Your task to perform on an android device: set the timer Image 0: 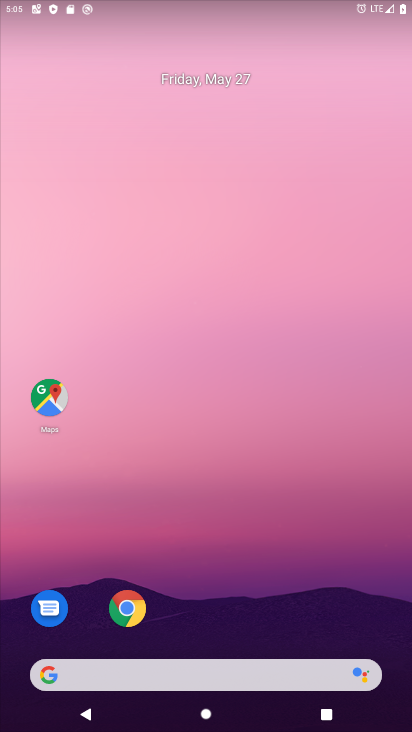
Step 0: drag from (239, 247) to (255, 141)
Your task to perform on an android device: set the timer Image 1: 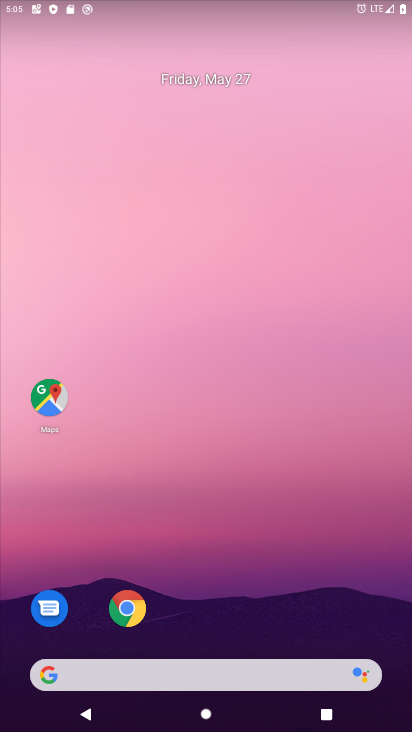
Step 1: drag from (248, 677) to (255, 138)
Your task to perform on an android device: set the timer Image 2: 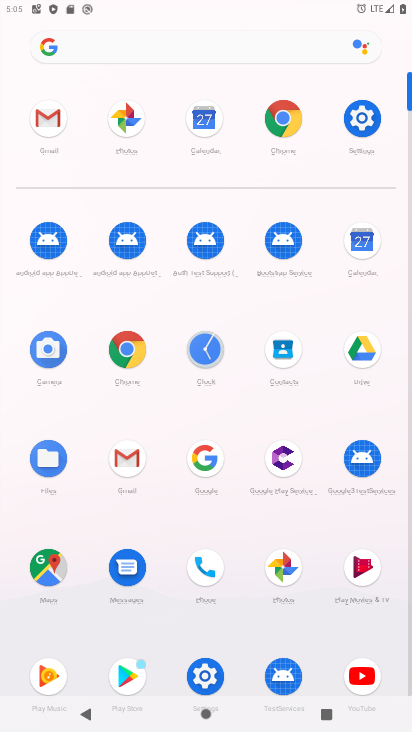
Step 2: click (204, 359)
Your task to perform on an android device: set the timer Image 3: 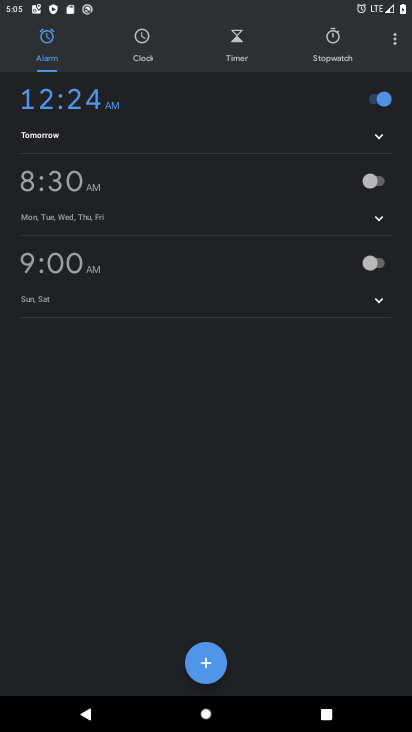
Step 3: click (241, 44)
Your task to perform on an android device: set the timer Image 4: 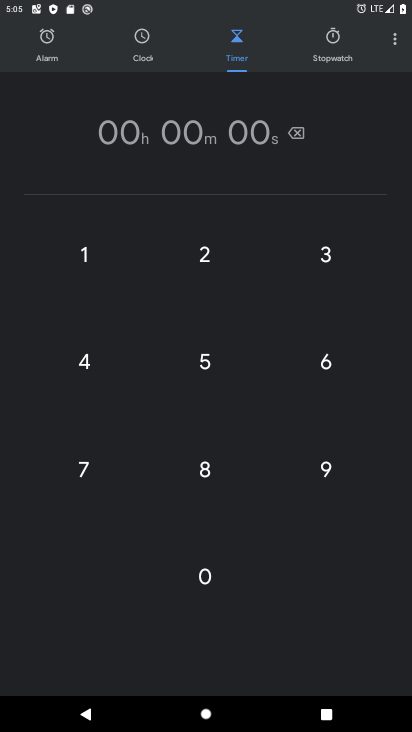
Step 4: click (205, 584)
Your task to perform on an android device: set the timer Image 5: 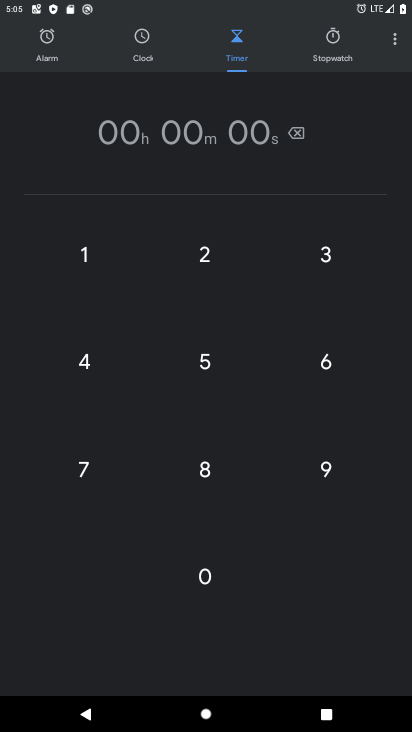
Step 5: click (197, 477)
Your task to perform on an android device: set the timer Image 6: 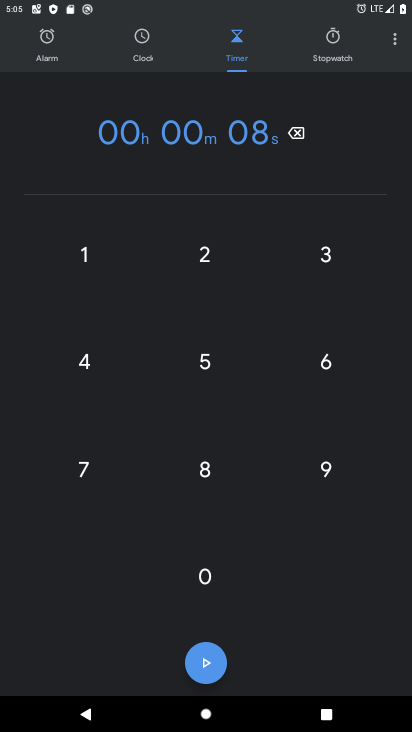
Step 6: click (208, 570)
Your task to perform on an android device: set the timer Image 7: 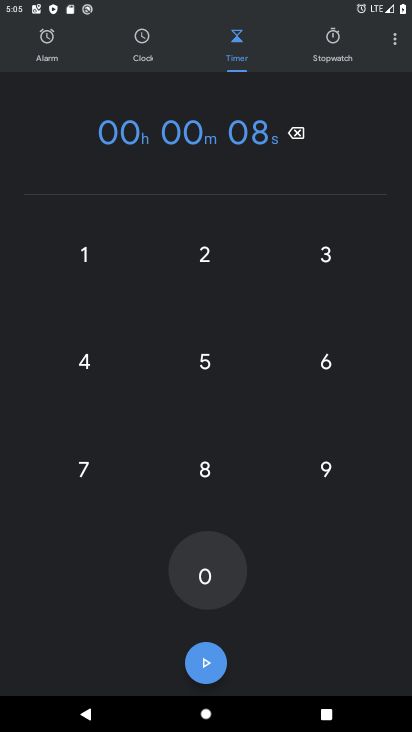
Step 7: click (208, 570)
Your task to perform on an android device: set the timer Image 8: 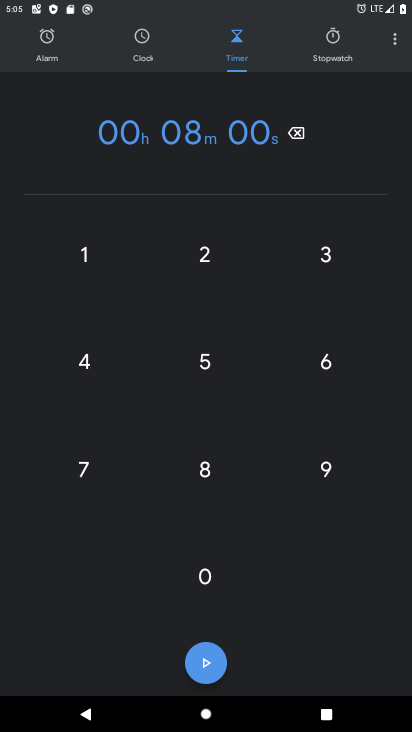
Step 8: task complete